Your task to perform on an android device: What's the weather going to be this weekend? Image 0: 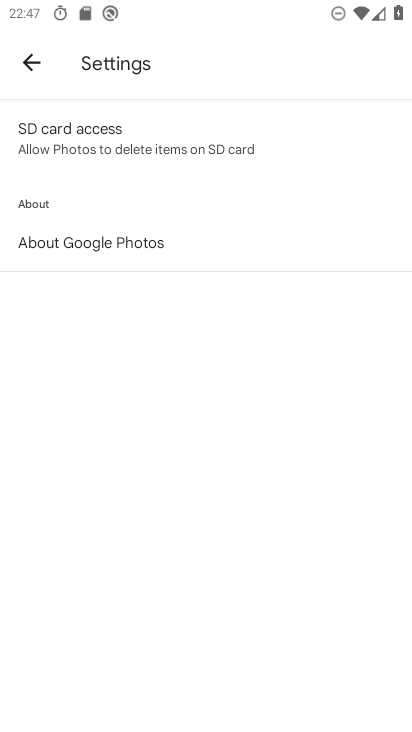
Step 0: press home button
Your task to perform on an android device: What's the weather going to be this weekend? Image 1: 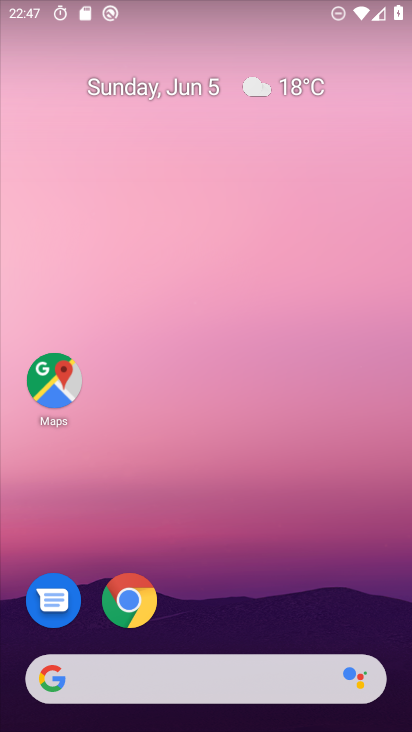
Step 1: click (298, 83)
Your task to perform on an android device: What's the weather going to be this weekend? Image 2: 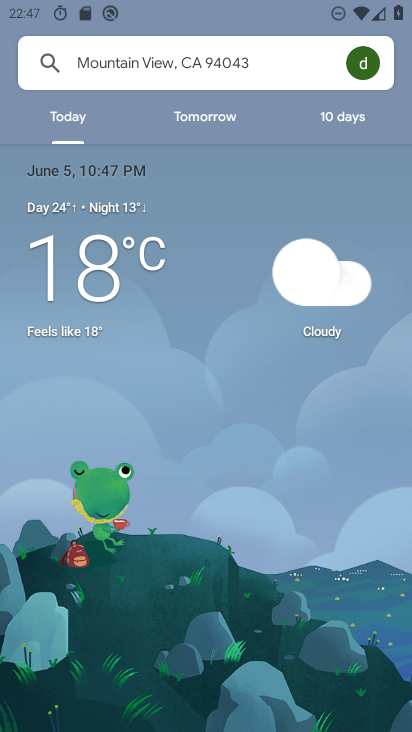
Step 2: click (336, 116)
Your task to perform on an android device: What's the weather going to be this weekend? Image 3: 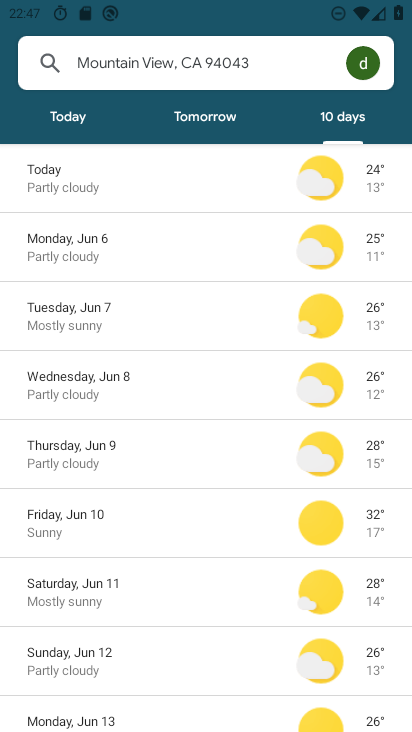
Step 3: task complete